Your task to perform on an android device: Show the shopping cart on bestbuy.com. Add "dell xps" to the cart on bestbuy.com, then select checkout. Image 0: 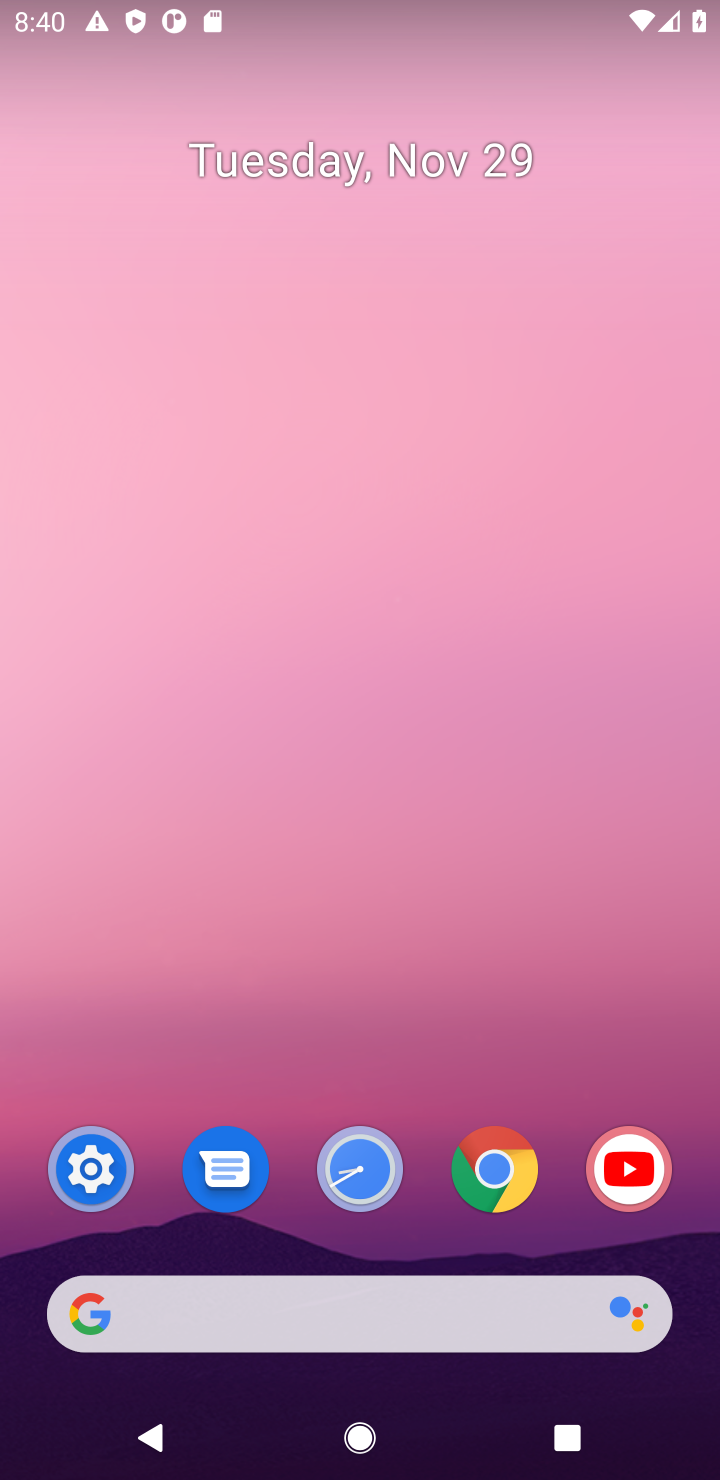
Step 0: click (415, 1319)
Your task to perform on an android device: Show the shopping cart on bestbuy.com. Add "dell xps" to the cart on bestbuy.com, then select checkout. Image 1: 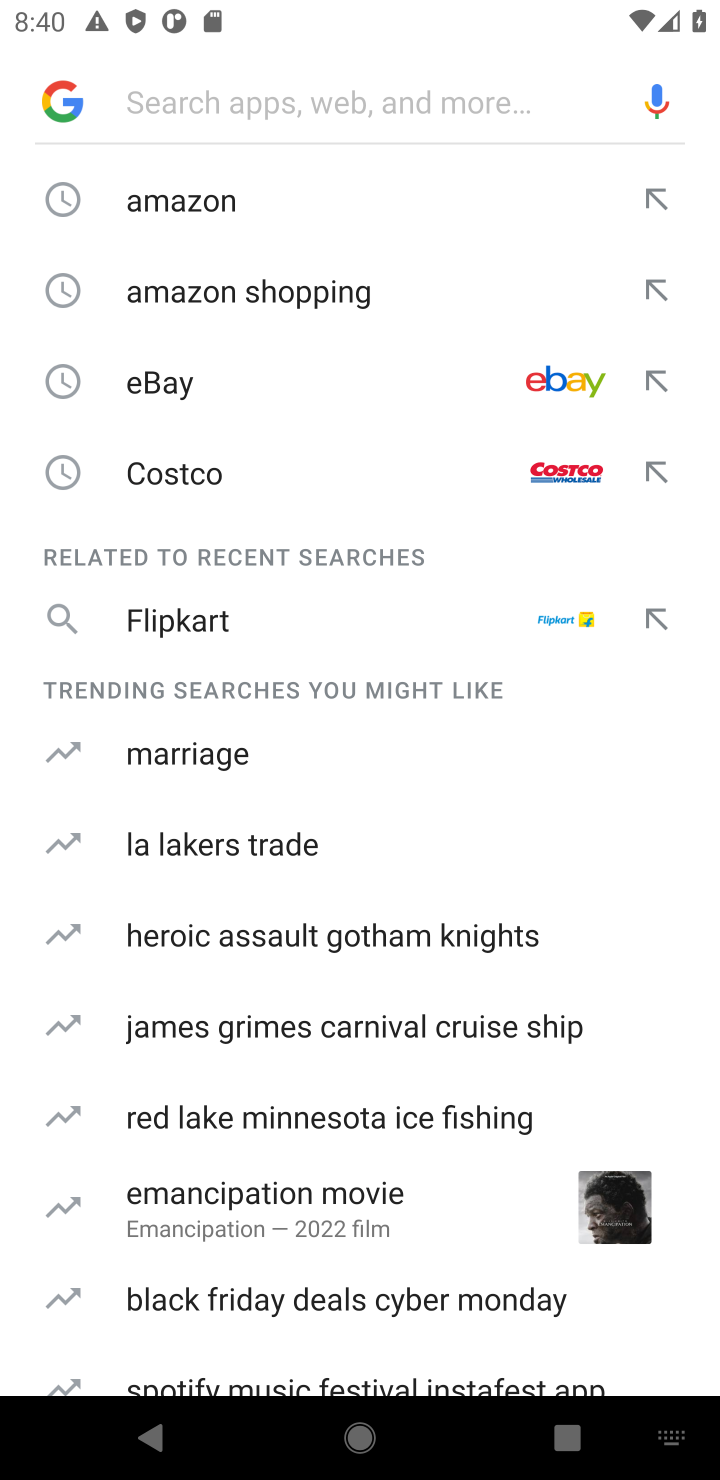
Step 1: type "bestbuy"
Your task to perform on an android device: Show the shopping cart on bestbuy.com. Add "dell xps" to the cart on bestbuy.com, then select checkout. Image 2: 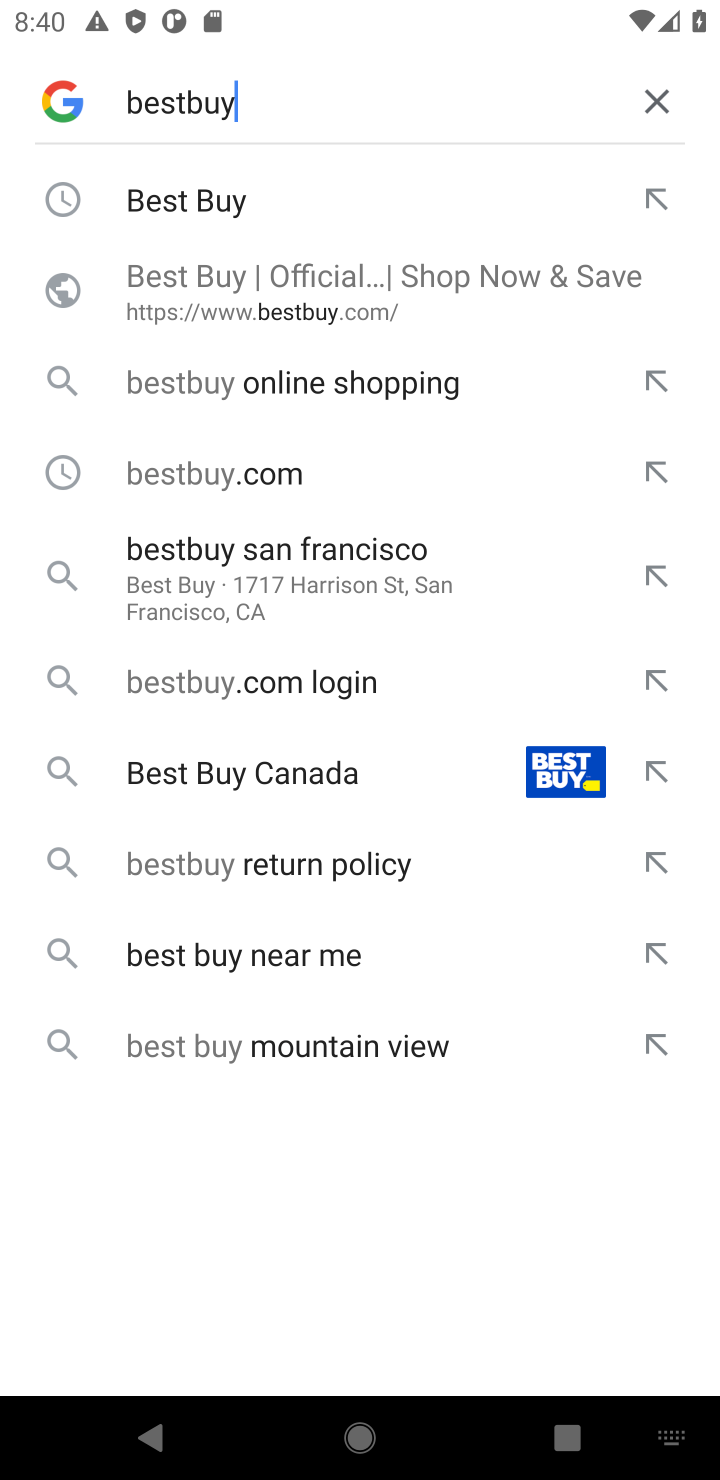
Step 2: click (329, 190)
Your task to perform on an android device: Show the shopping cart on bestbuy.com. Add "dell xps" to the cart on bestbuy.com, then select checkout. Image 3: 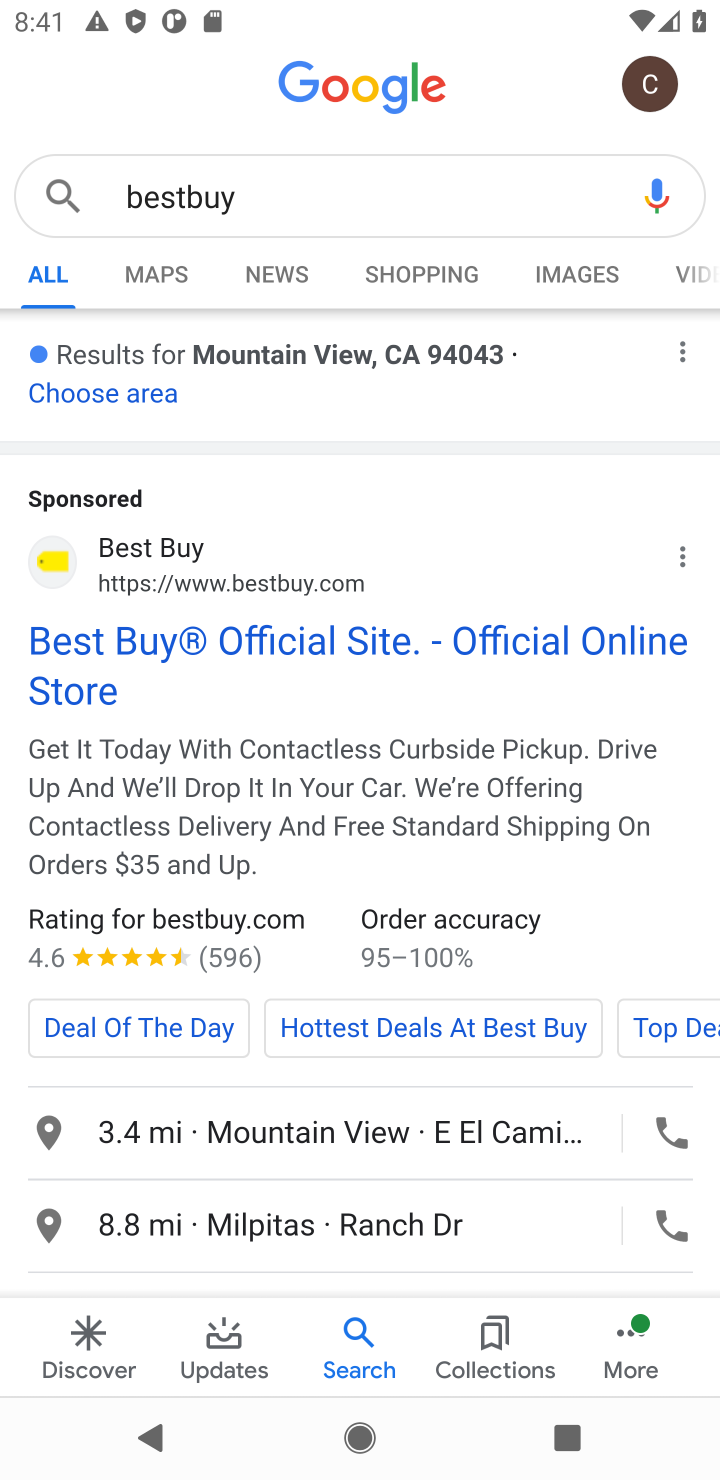
Step 3: click (186, 625)
Your task to perform on an android device: Show the shopping cart on bestbuy.com. Add "dell xps" to the cart on bestbuy.com, then select checkout. Image 4: 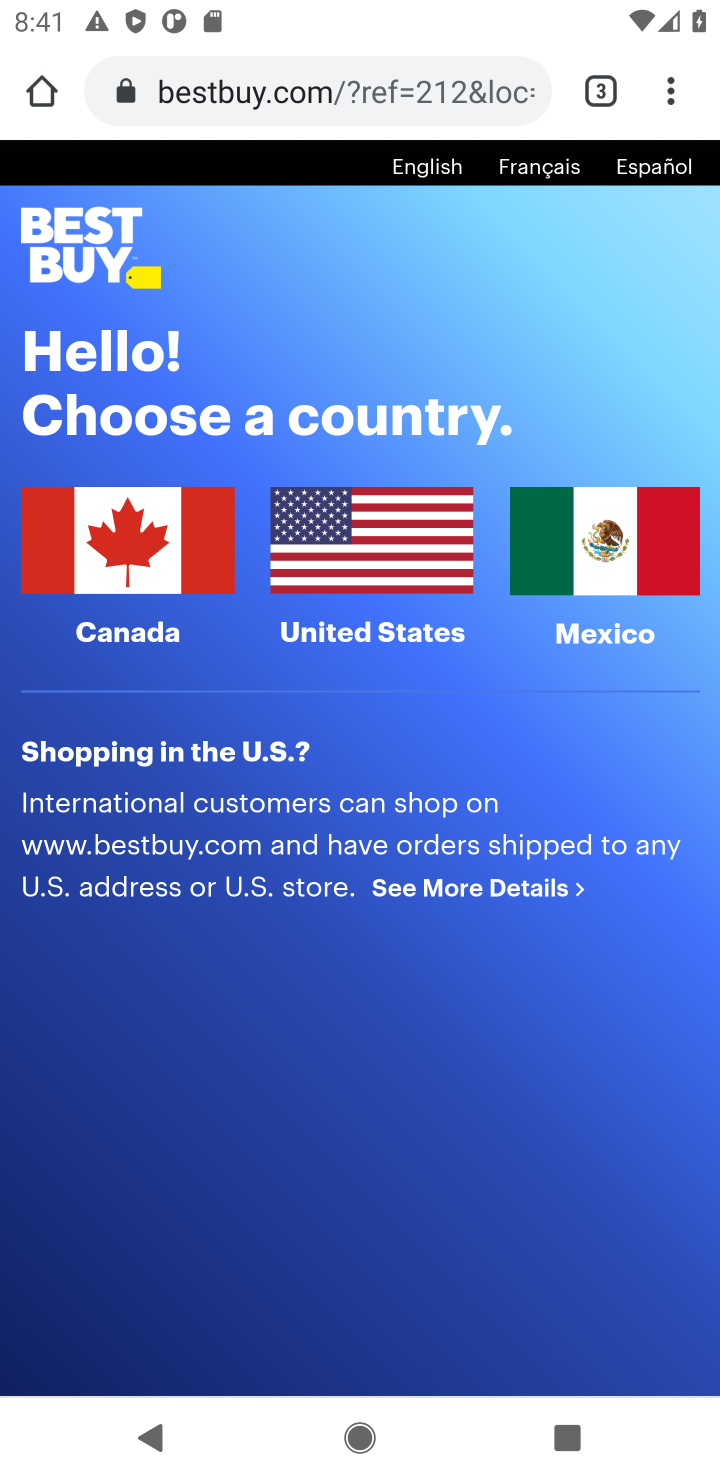
Step 4: click (170, 615)
Your task to perform on an android device: Show the shopping cart on bestbuy.com. Add "dell xps" to the cart on bestbuy.com, then select checkout. Image 5: 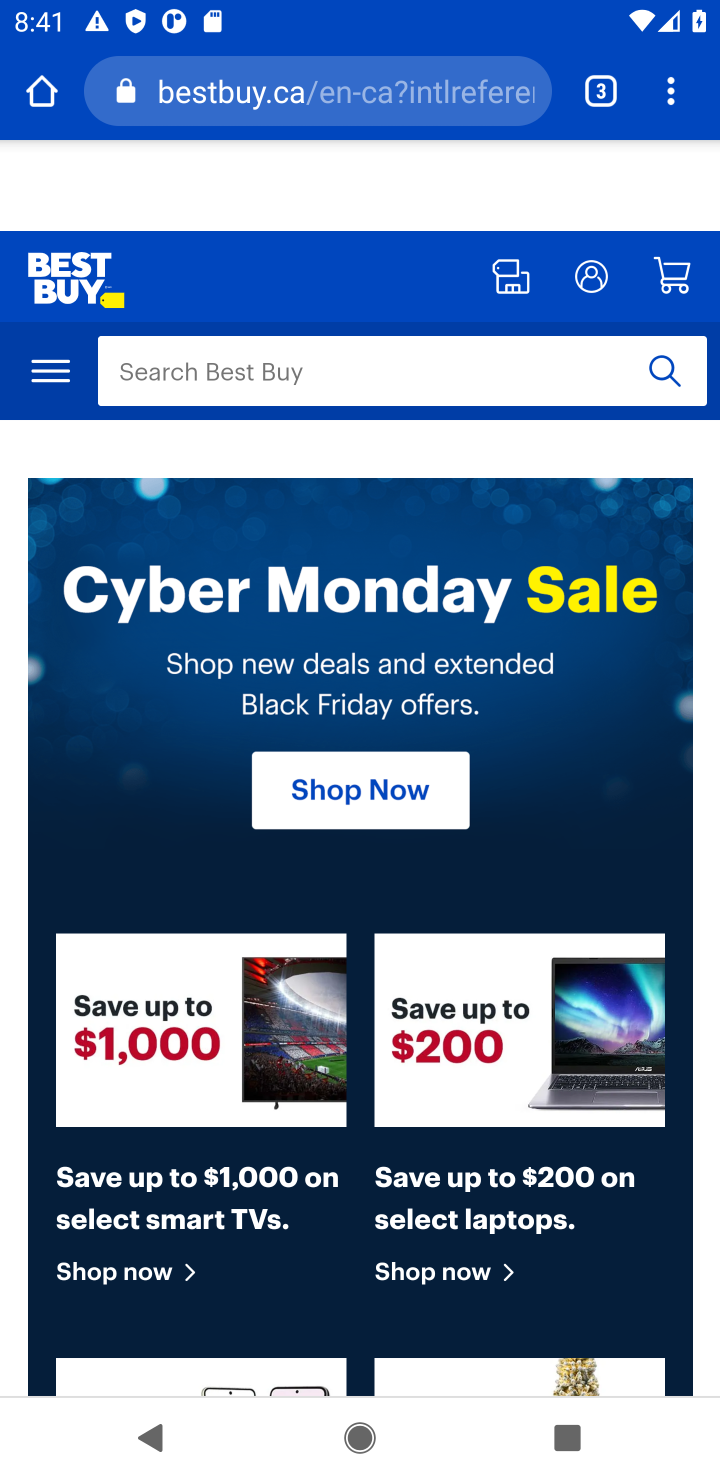
Step 5: click (269, 384)
Your task to perform on an android device: Show the shopping cart on bestbuy.com. Add "dell xps" to the cart on bestbuy.com, then select checkout. Image 6: 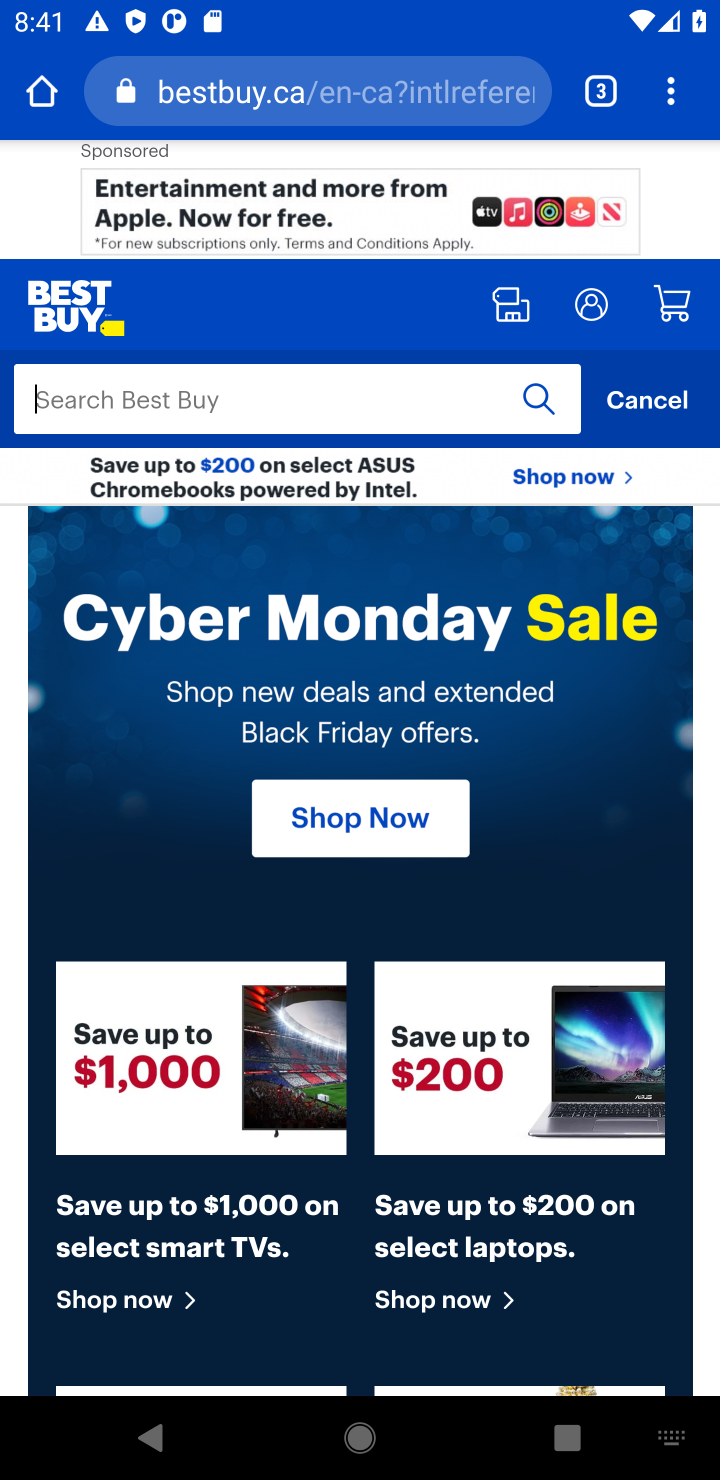
Step 6: type "dell xps"
Your task to perform on an android device: Show the shopping cart on bestbuy.com. Add "dell xps" to the cart on bestbuy.com, then select checkout. Image 7: 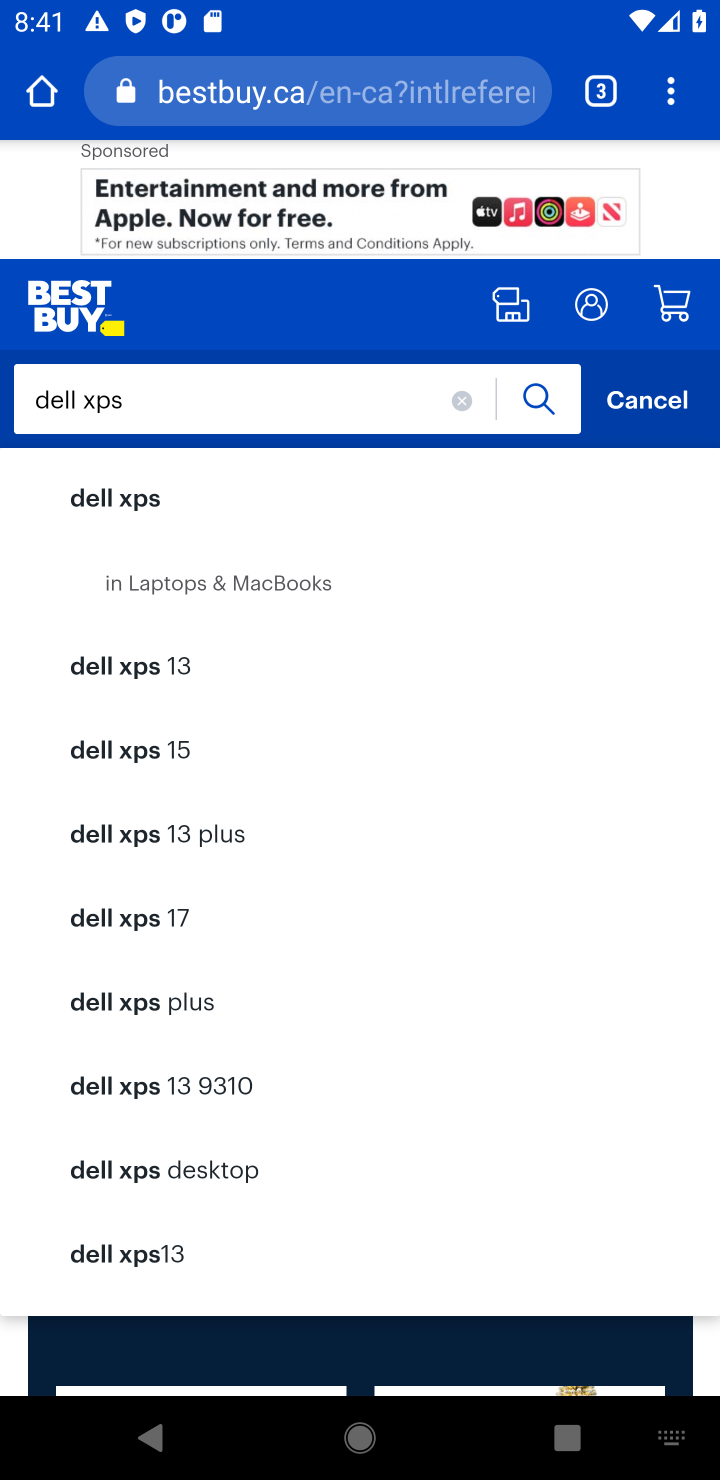
Step 7: click (172, 507)
Your task to perform on an android device: Show the shopping cart on bestbuy.com. Add "dell xps" to the cart on bestbuy.com, then select checkout. Image 8: 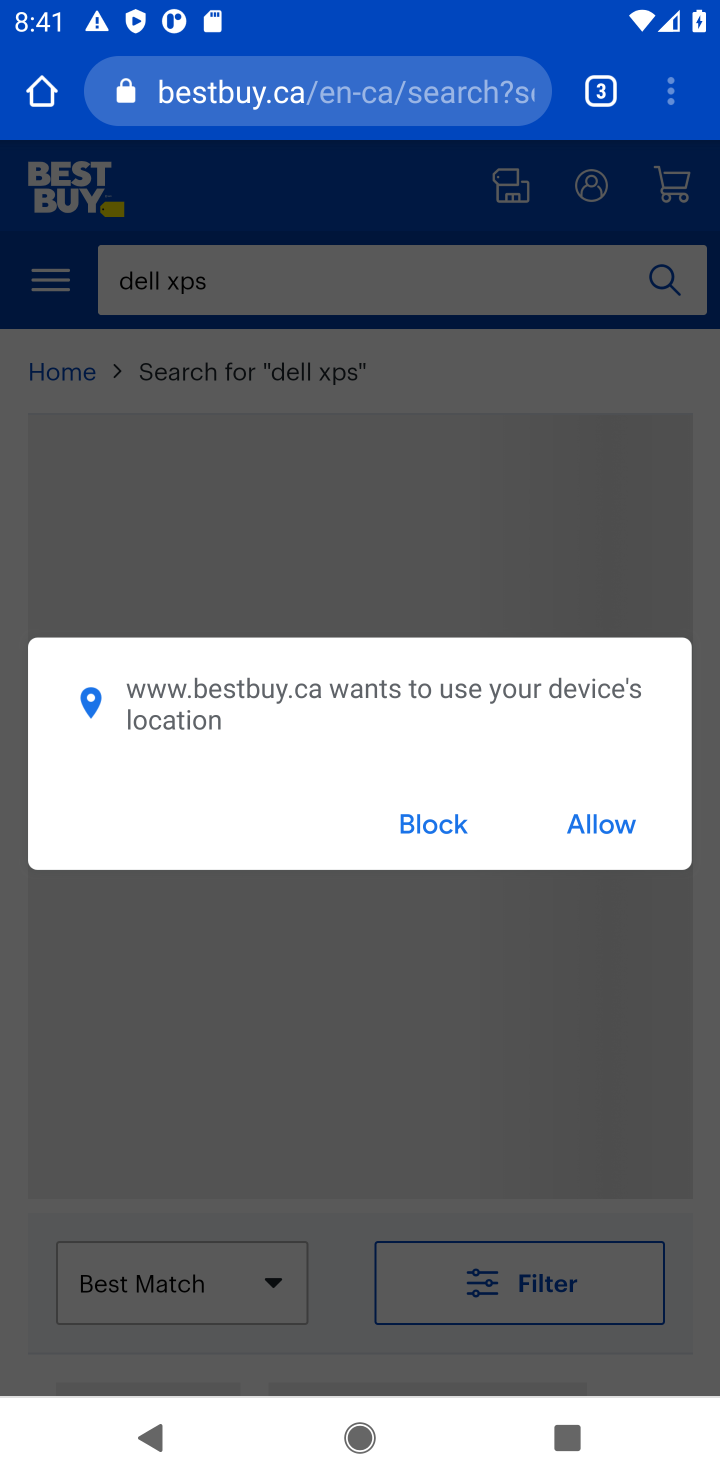
Step 8: click (453, 852)
Your task to perform on an android device: Show the shopping cart on bestbuy.com. Add "dell xps" to the cart on bestbuy.com, then select checkout. Image 9: 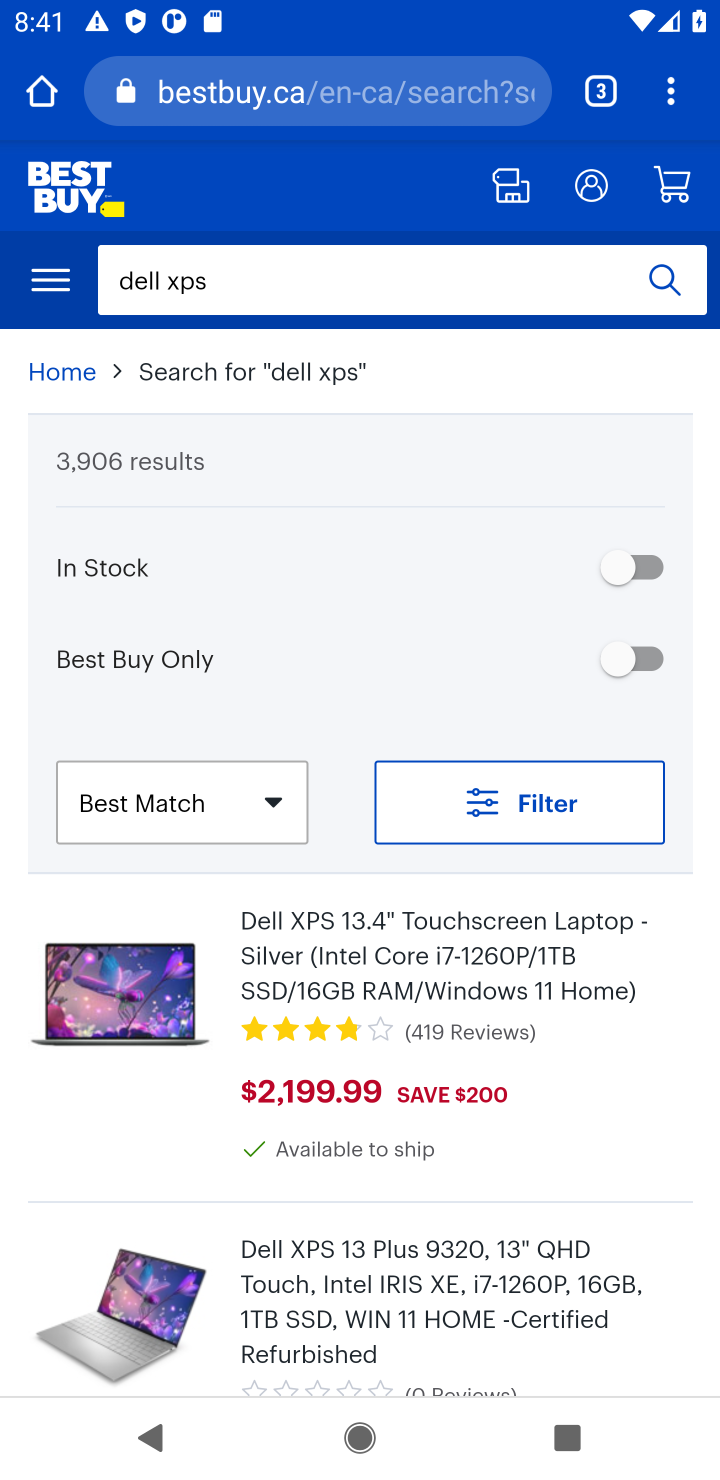
Step 9: task complete